Your task to perform on an android device: Open the phone app and click the voicemail tab. Image 0: 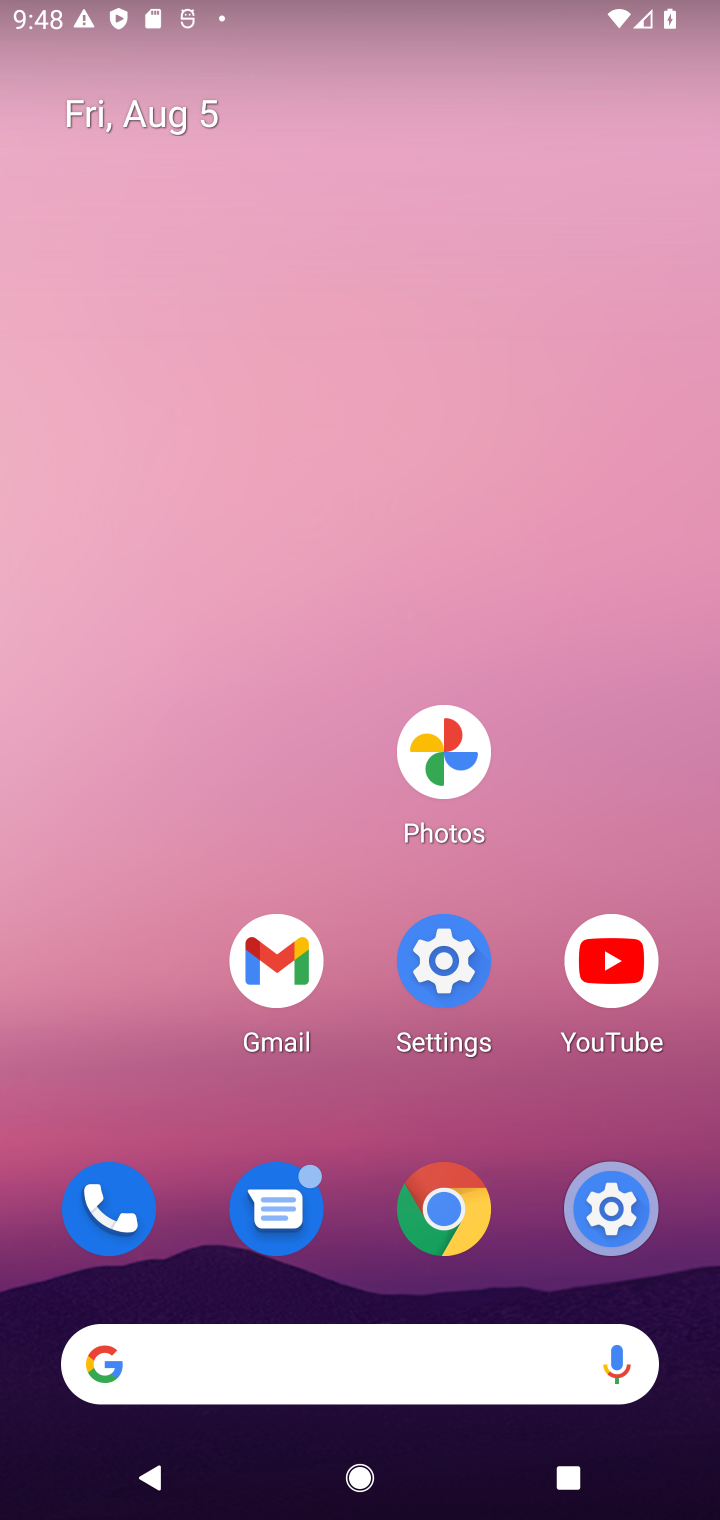
Step 0: click (400, 259)
Your task to perform on an android device: Open the phone app and click the voicemail tab. Image 1: 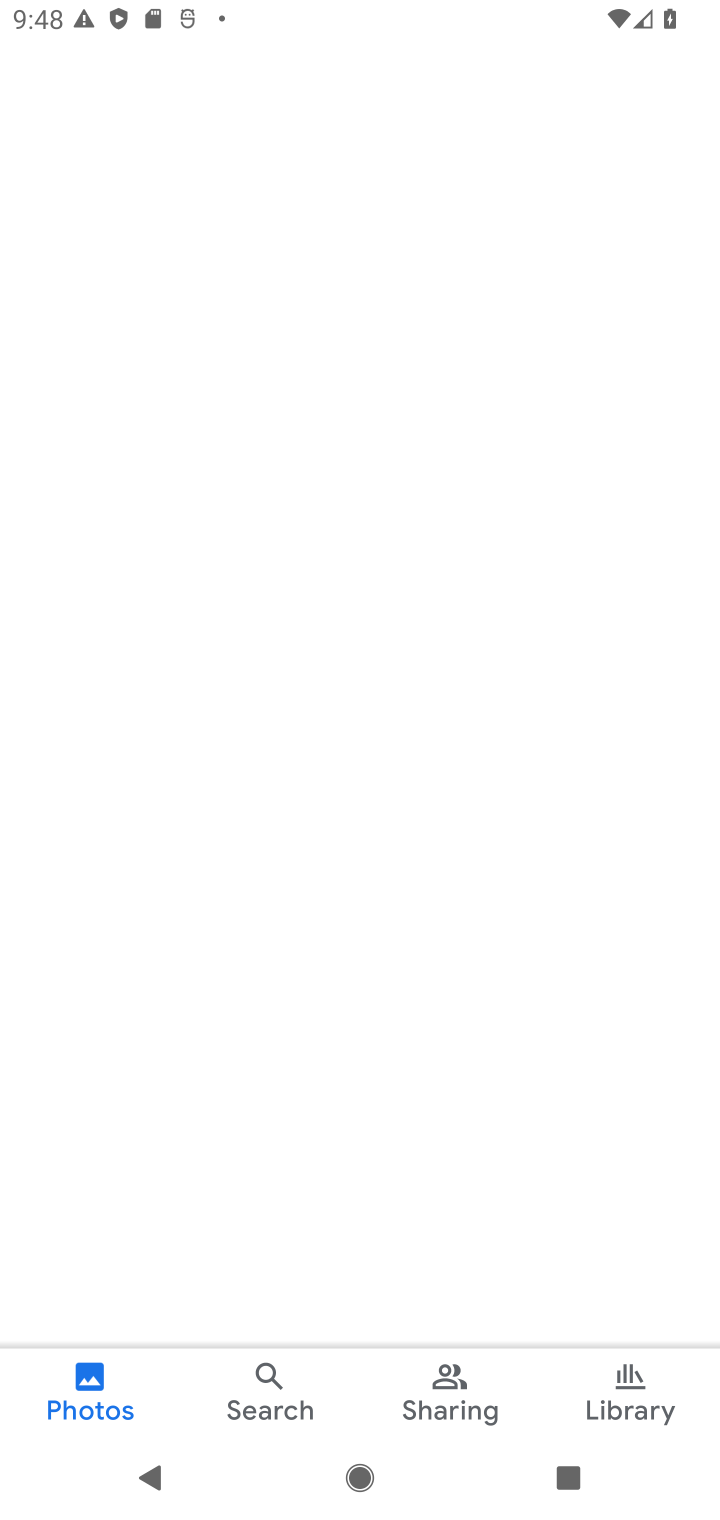
Step 1: drag from (347, 1293) to (417, 362)
Your task to perform on an android device: Open the phone app and click the voicemail tab. Image 2: 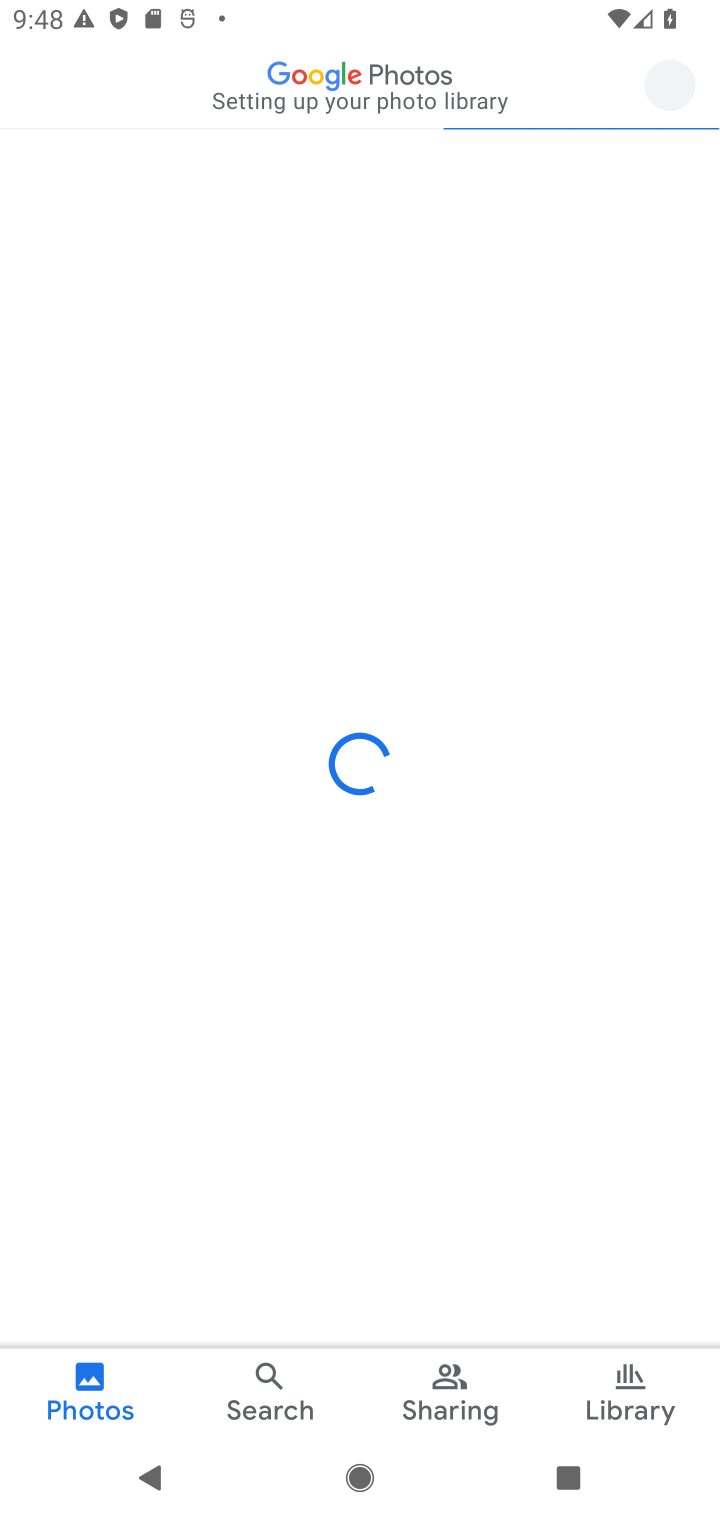
Step 2: drag from (395, 1382) to (456, 518)
Your task to perform on an android device: Open the phone app and click the voicemail tab. Image 3: 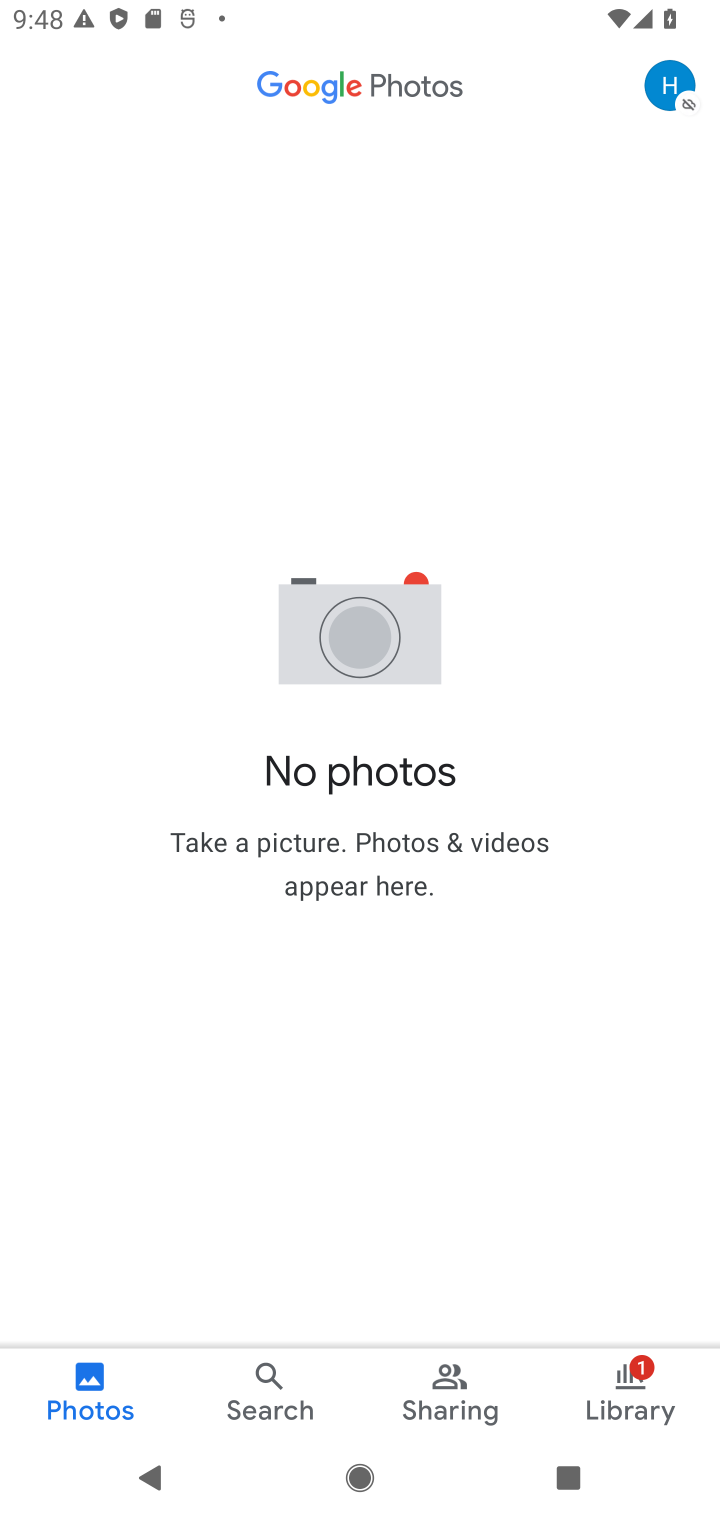
Step 3: drag from (261, 1225) to (350, 549)
Your task to perform on an android device: Open the phone app and click the voicemail tab. Image 4: 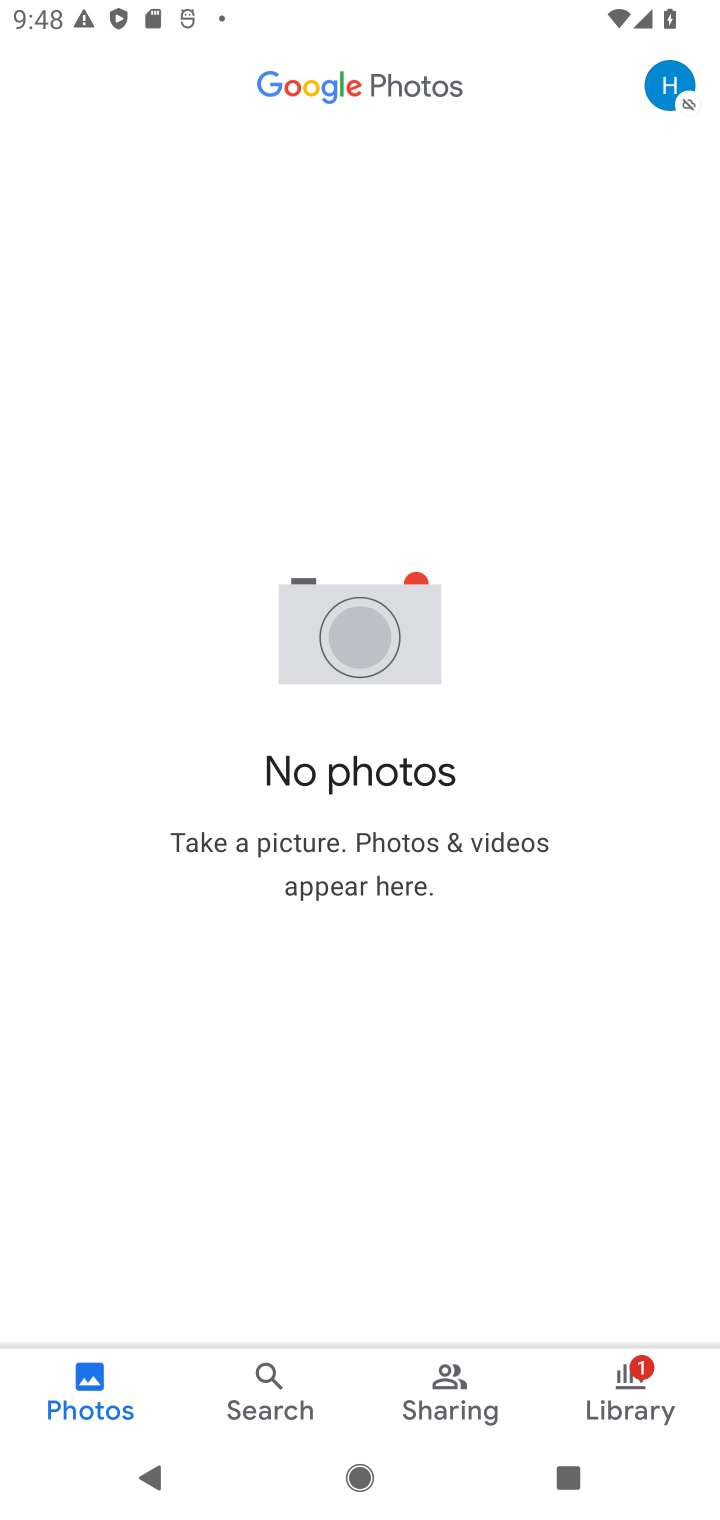
Step 4: drag from (330, 1214) to (347, 586)
Your task to perform on an android device: Open the phone app and click the voicemail tab. Image 5: 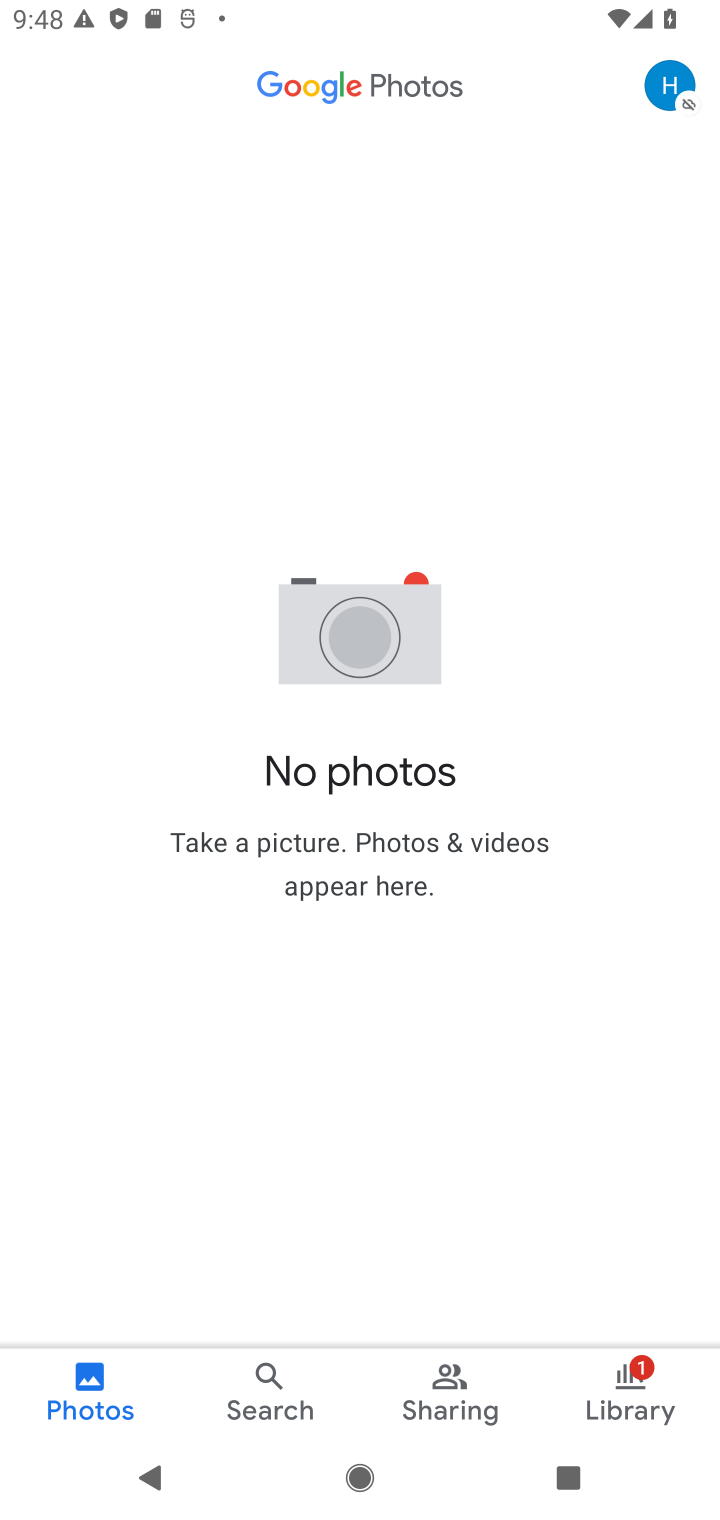
Step 5: drag from (321, 1277) to (303, 755)
Your task to perform on an android device: Open the phone app and click the voicemail tab. Image 6: 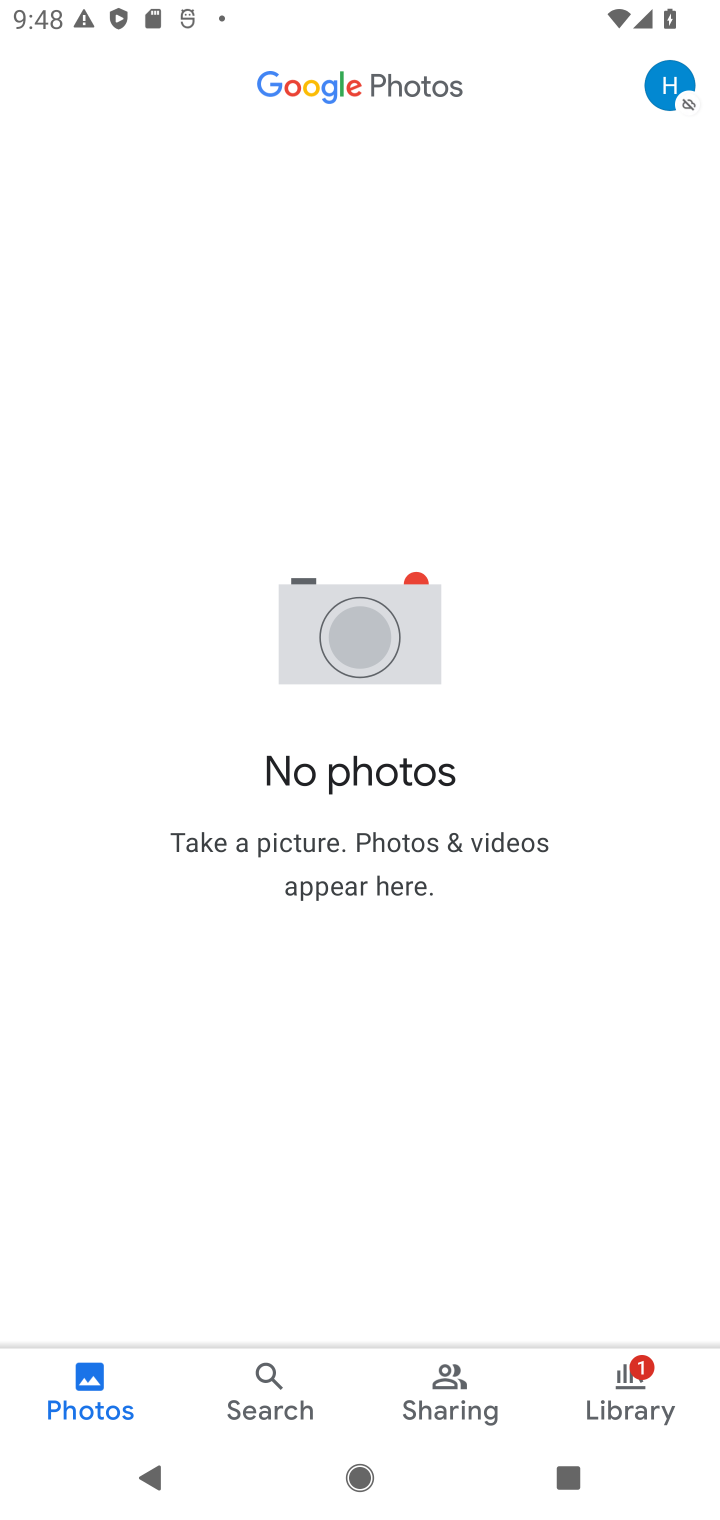
Step 6: drag from (365, 966) to (365, 560)
Your task to perform on an android device: Open the phone app and click the voicemail tab. Image 7: 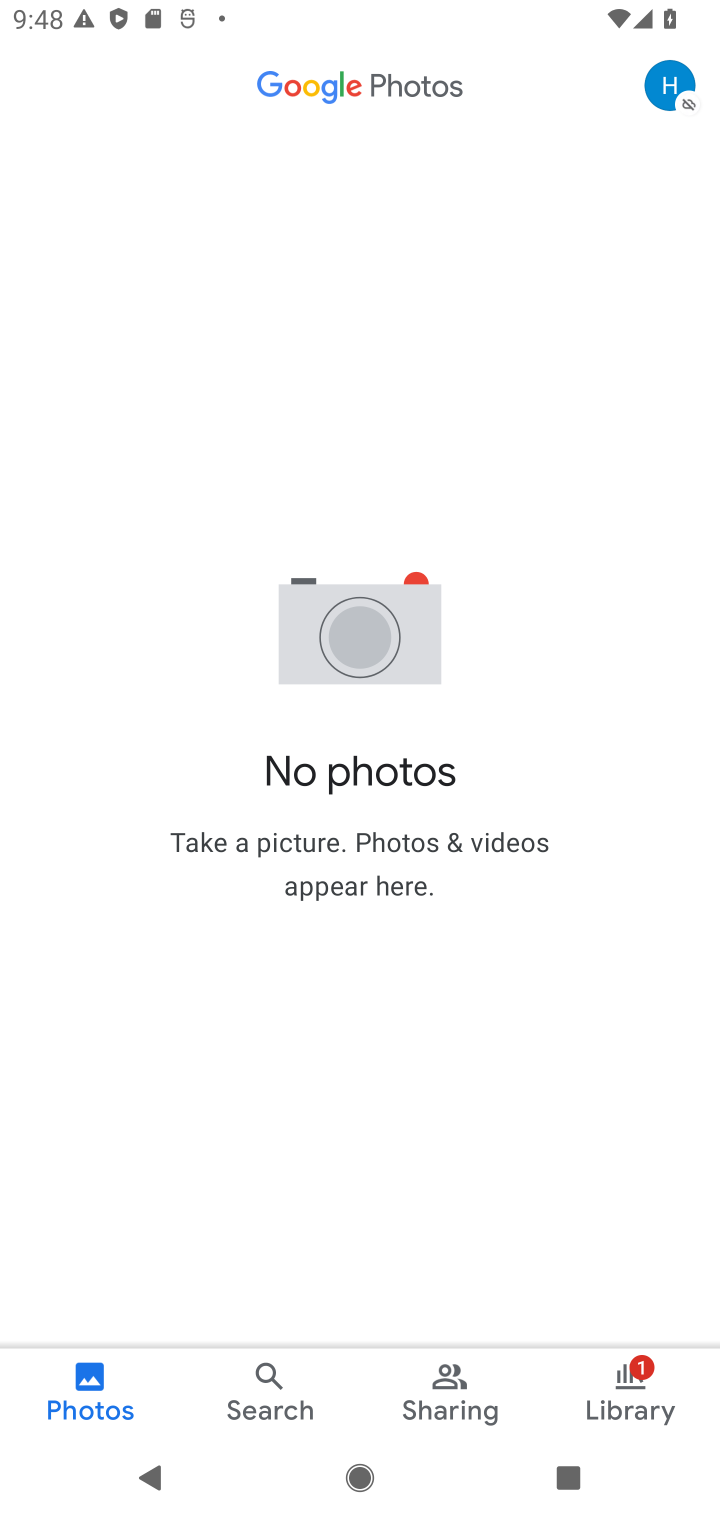
Step 7: drag from (307, 983) to (338, 527)
Your task to perform on an android device: Open the phone app and click the voicemail tab. Image 8: 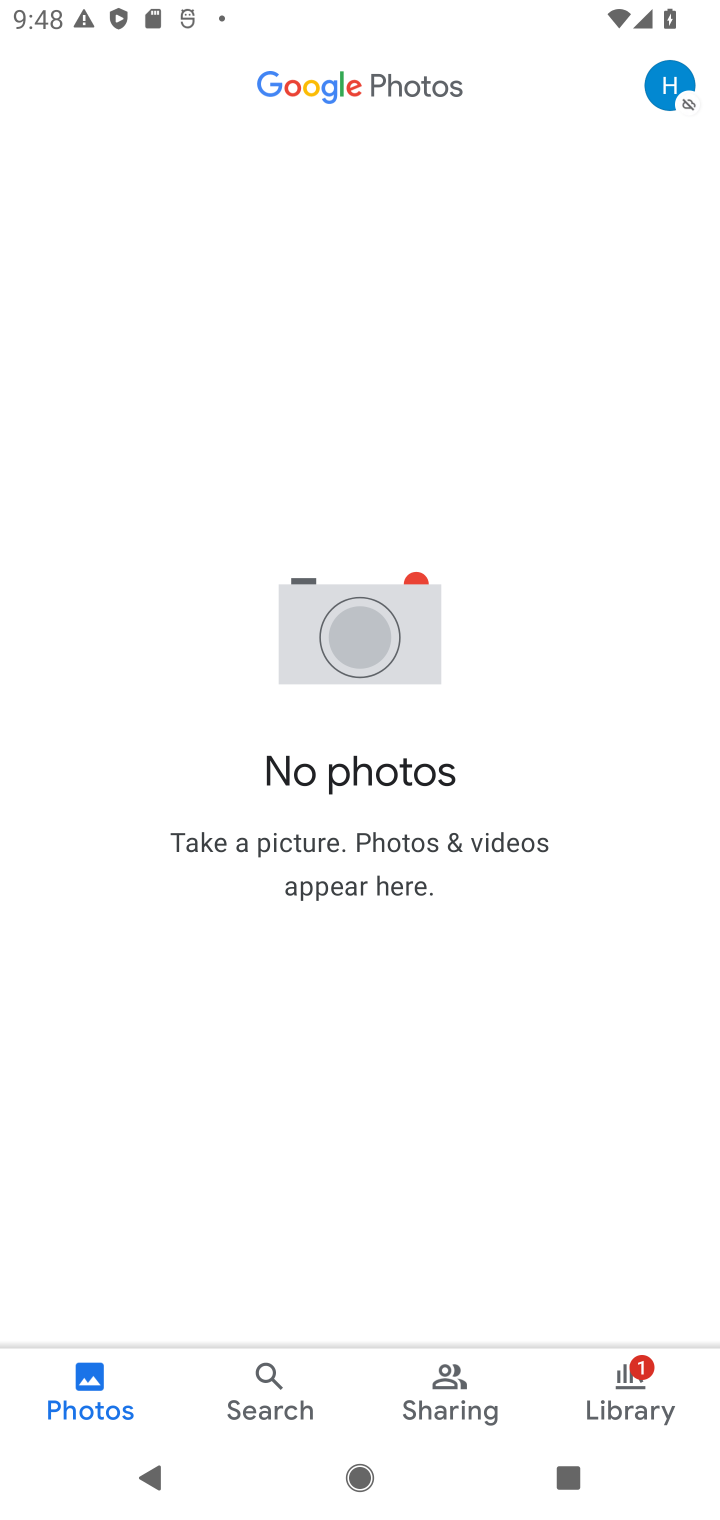
Step 8: drag from (310, 992) to (349, 431)
Your task to perform on an android device: Open the phone app and click the voicemail tab. Image 9: 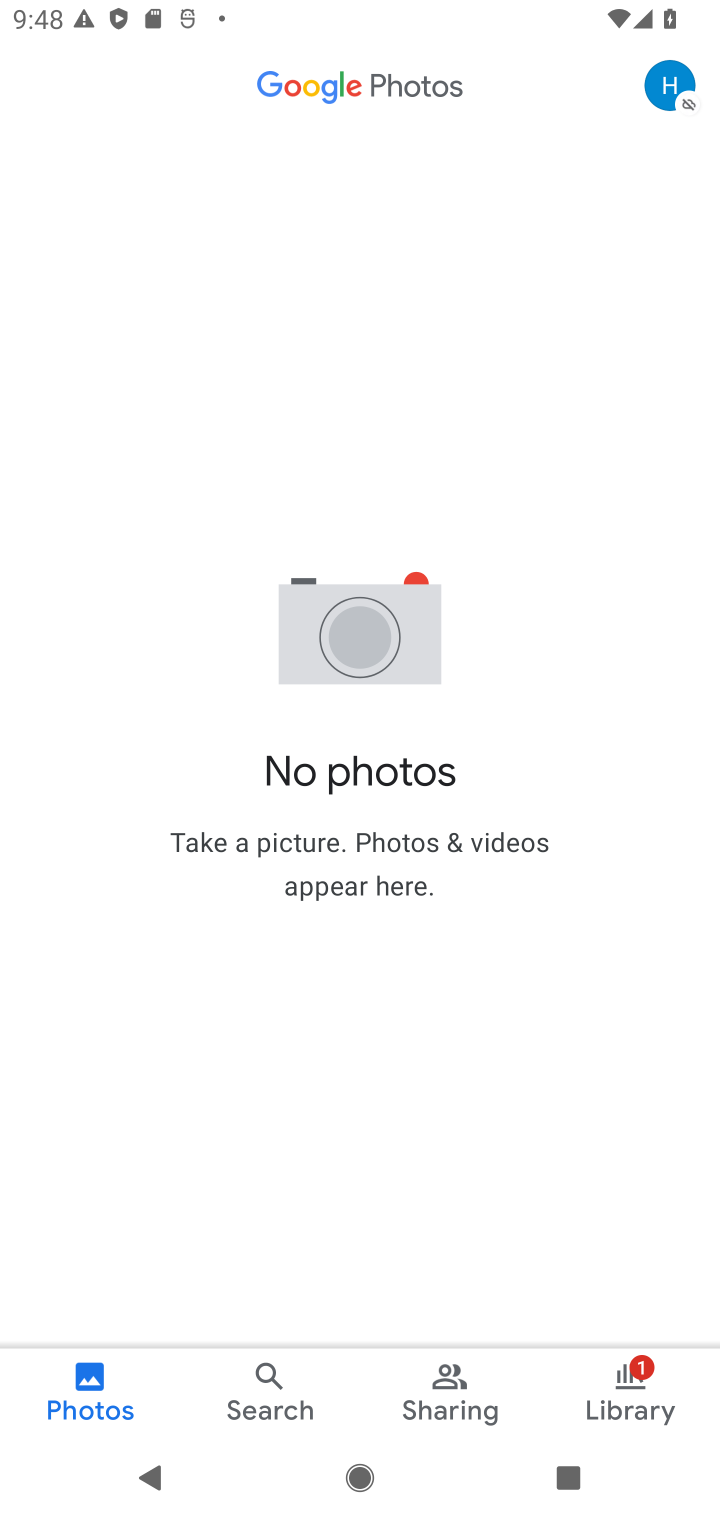
Step 9: press home button
Your task to perform on an android device: Open the phone app and click the voicemail tab. Image 10: 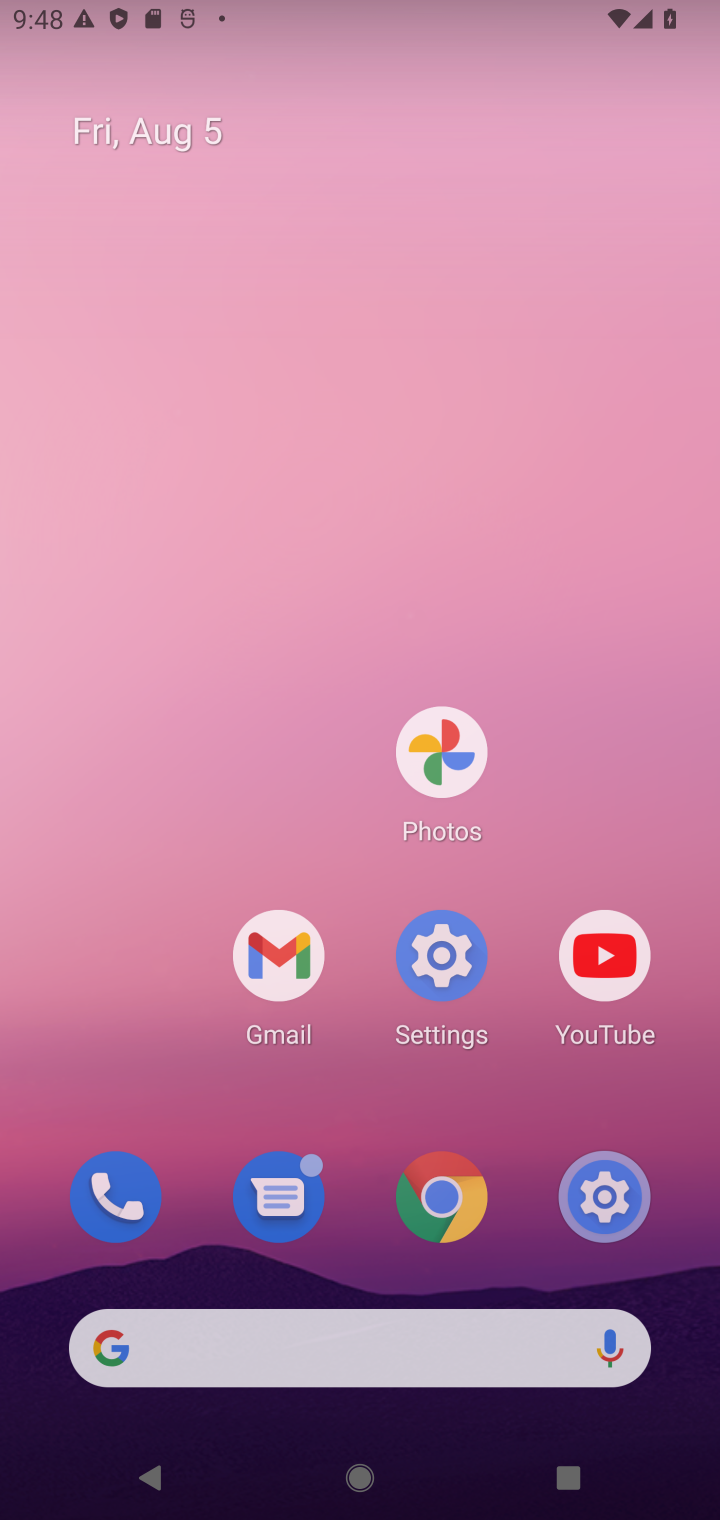
Step 10: drag from (361, 1114) to (471, 16)
Your task to perform on an android device: Open the phone app and click the voicemail tab. Image 11: 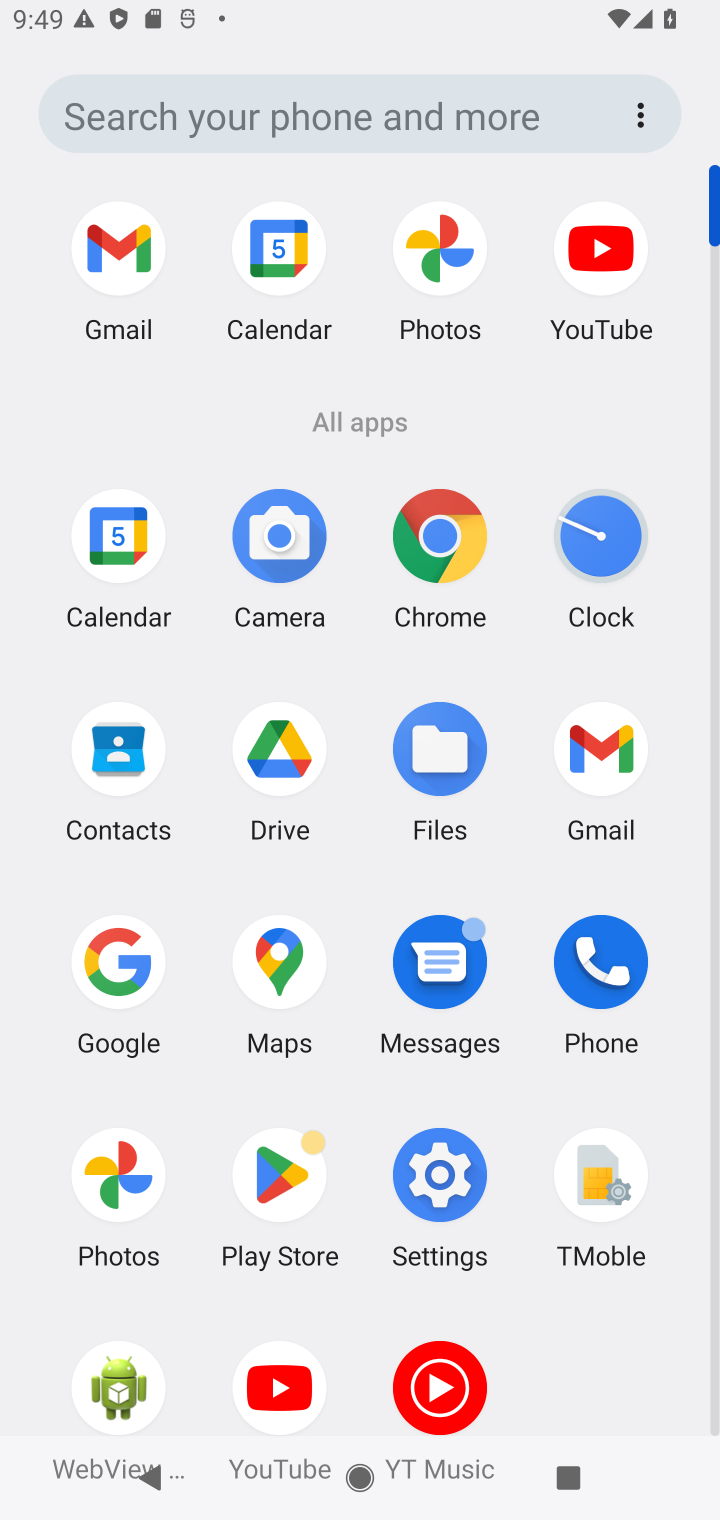
Step 11: click (591, 978)
Your task to perform on an android device: Open the phone app and click the voicemail tab. Image 12: 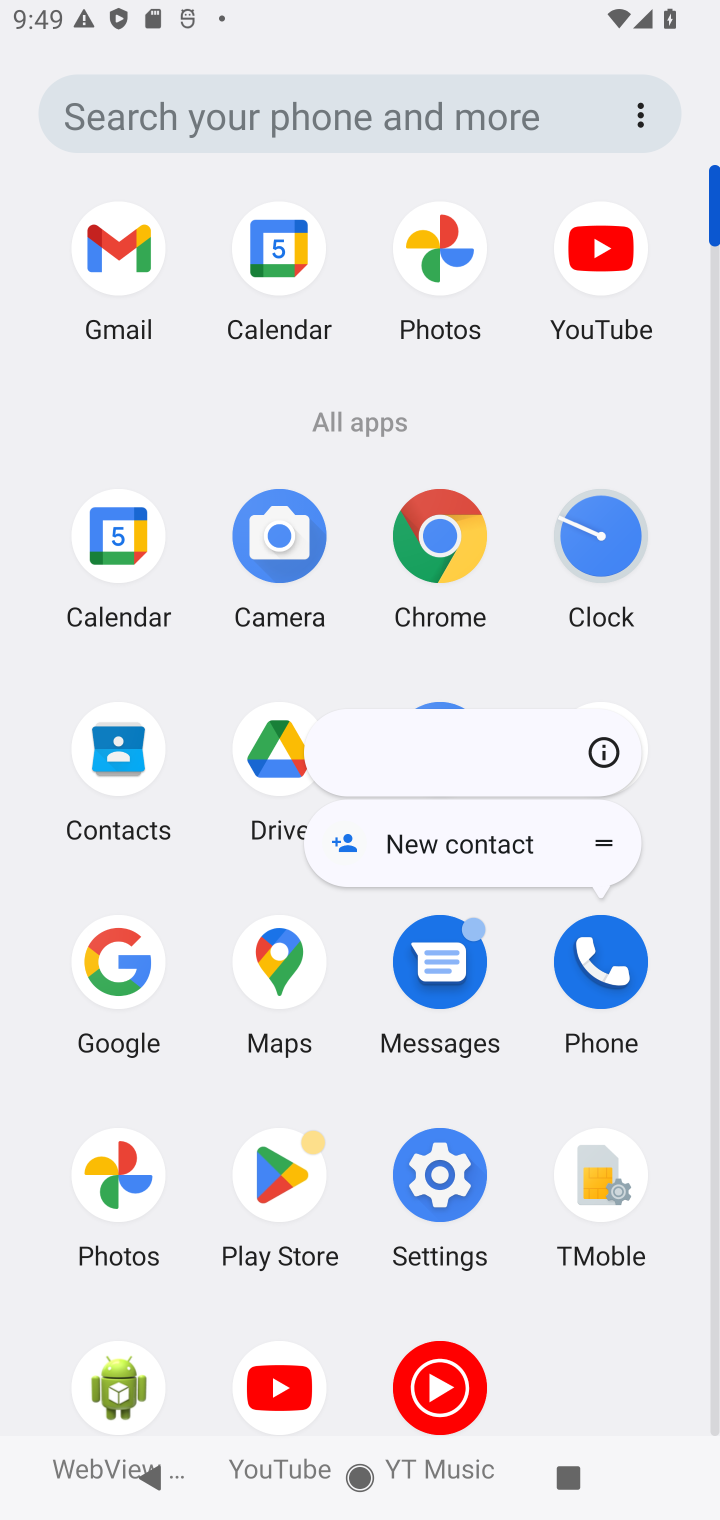
Step 12: click (597, 741)
Your task to perform on an android device: Open the phone app and click the voicemail tab. Image 13: 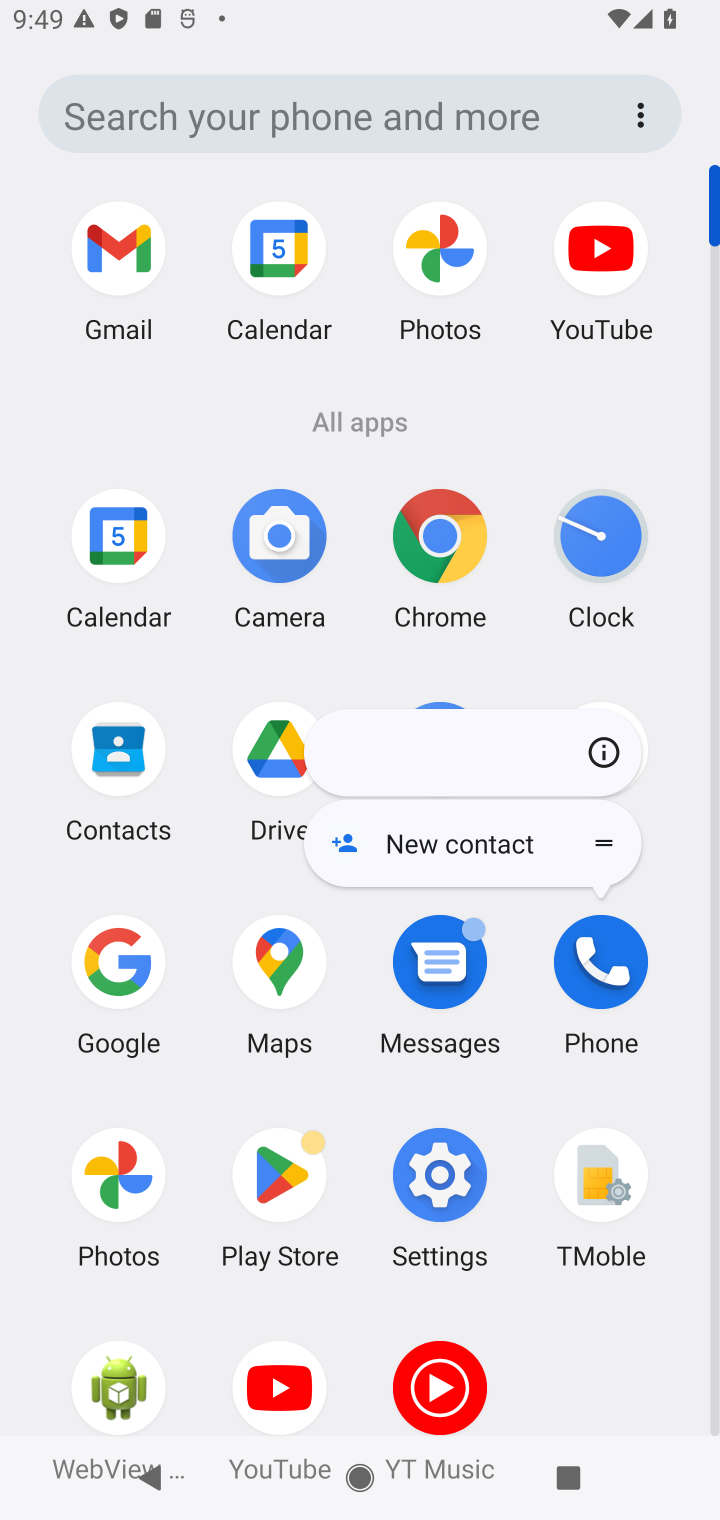
Step 13: click (609, 740)
Your task to perform on an android device: Open the phone app and click the voicemail tab. Image 14: 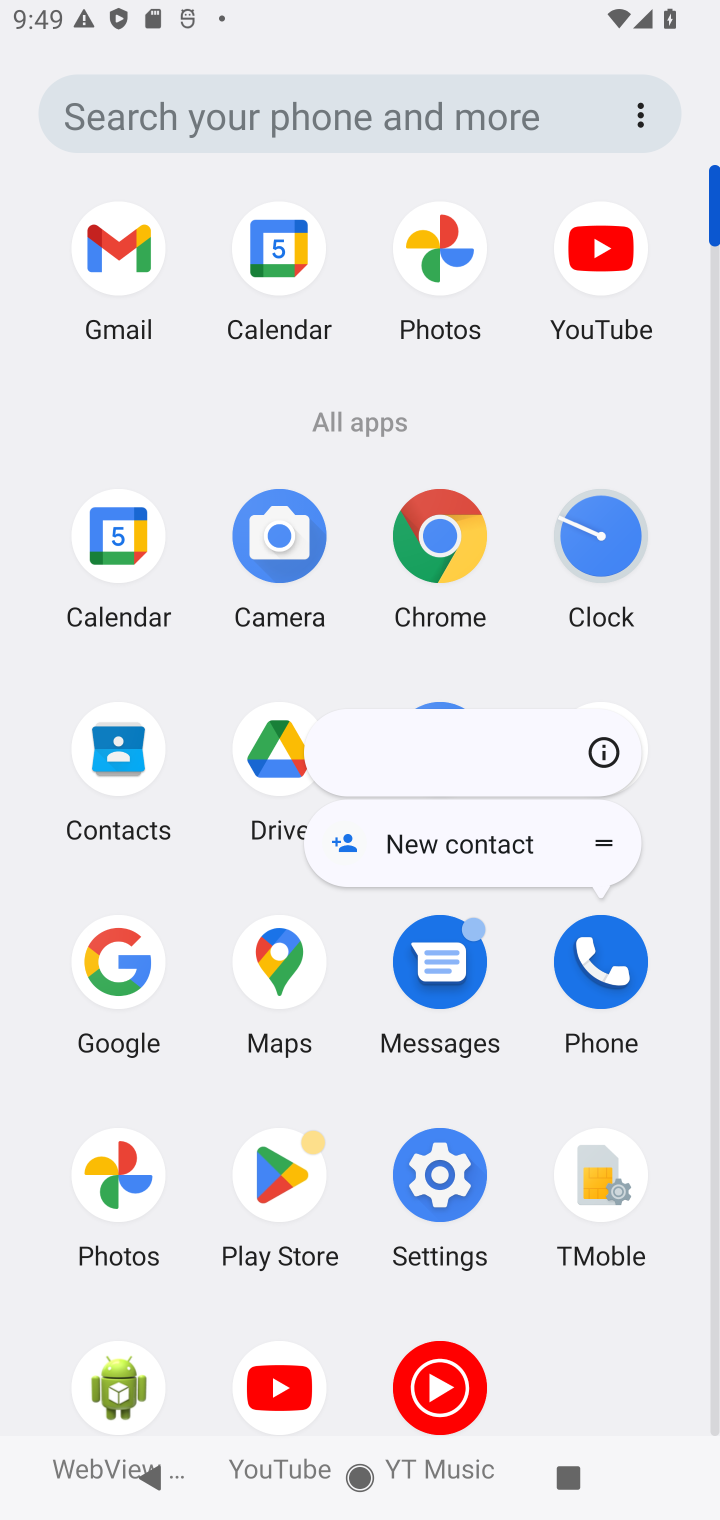
Step 14: click (599, 743)
Your task to perform on an android device: Open the phone app and click the voicemail tab. Image 15: 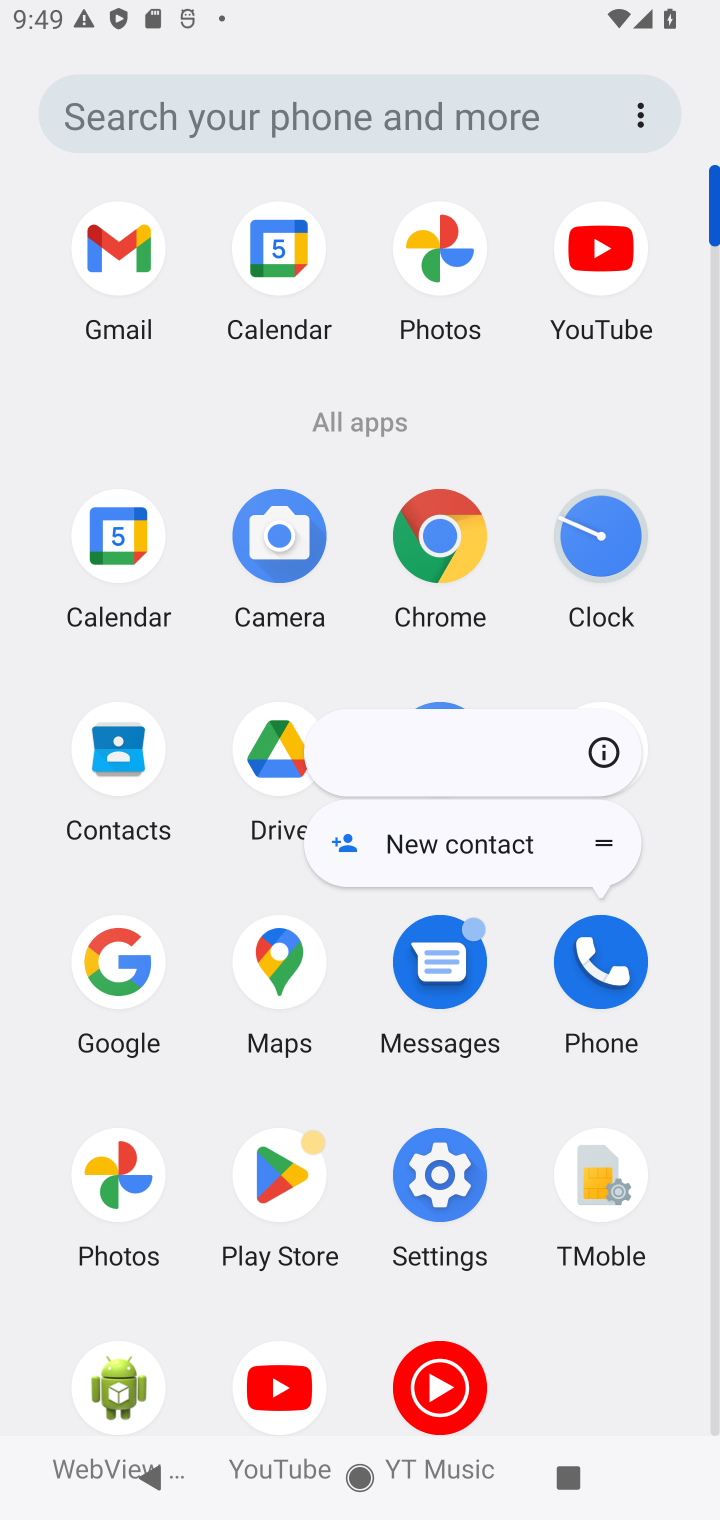
Step 15: click (599, 743)
Your task to perform on an android device: Open the phone app and click the voicemail tab. Image 16: 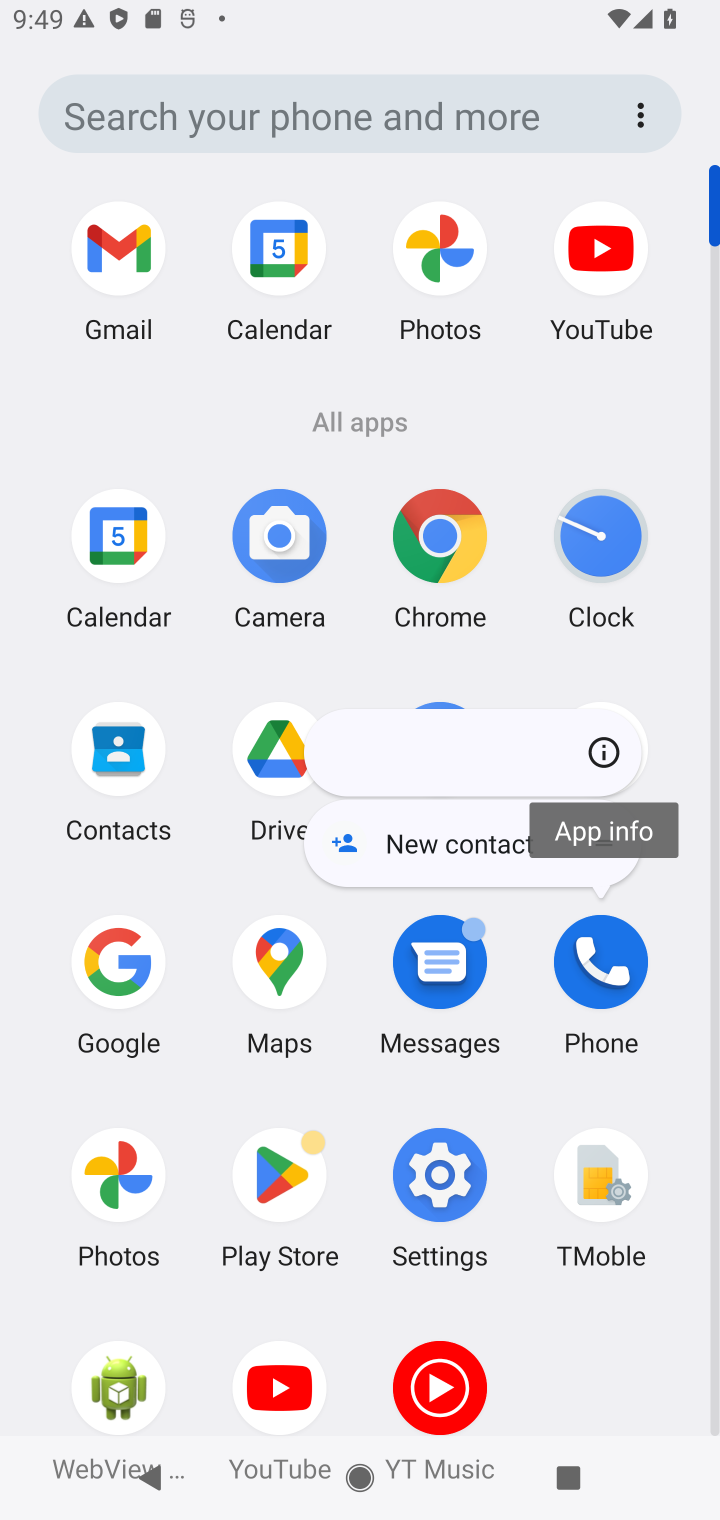
Step 16: click (602, 982)
Your task to perform on an android device: Open the phone app and click the voicemail tab. Image 17: 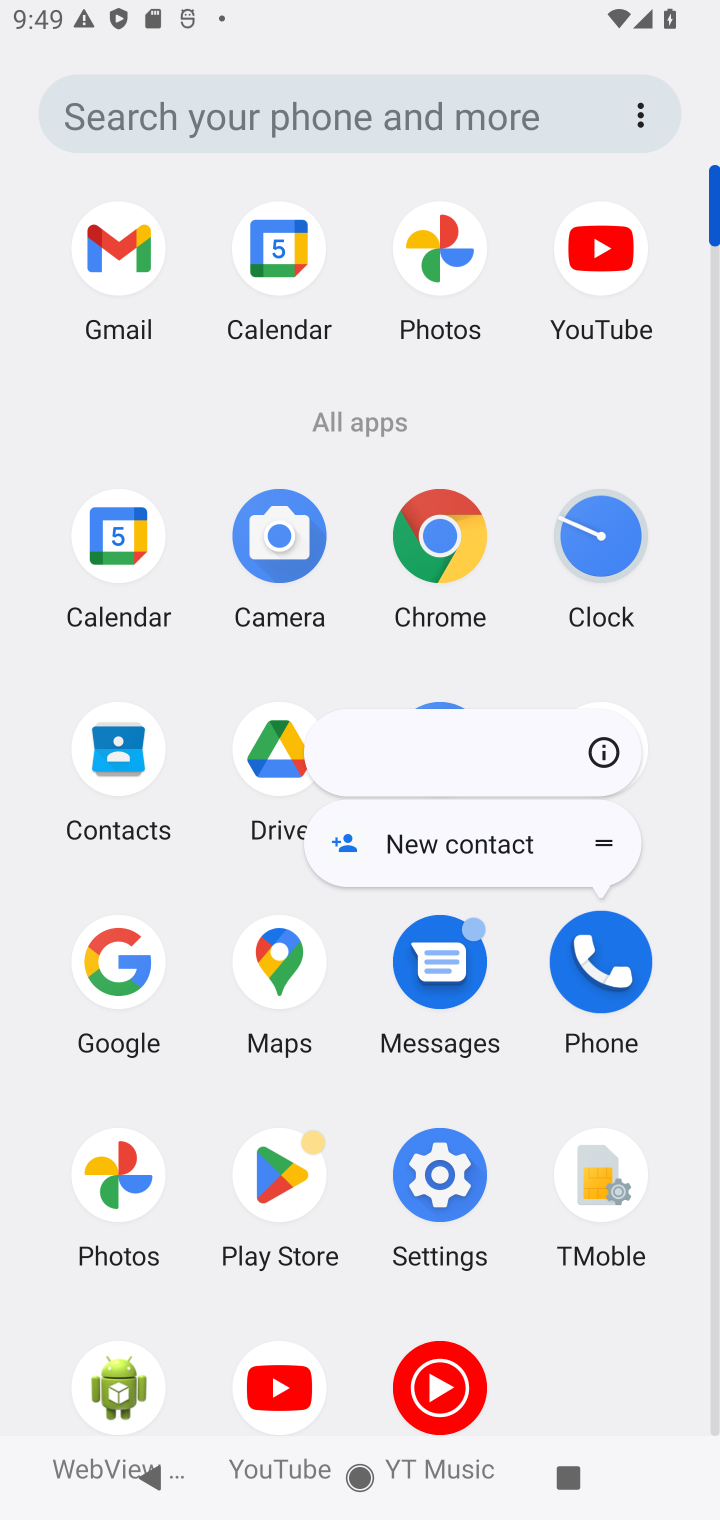
Step 17: click (602, 978)
Your task to perform on an android device: Open the phone app and click the voicemail tab. Image 18: 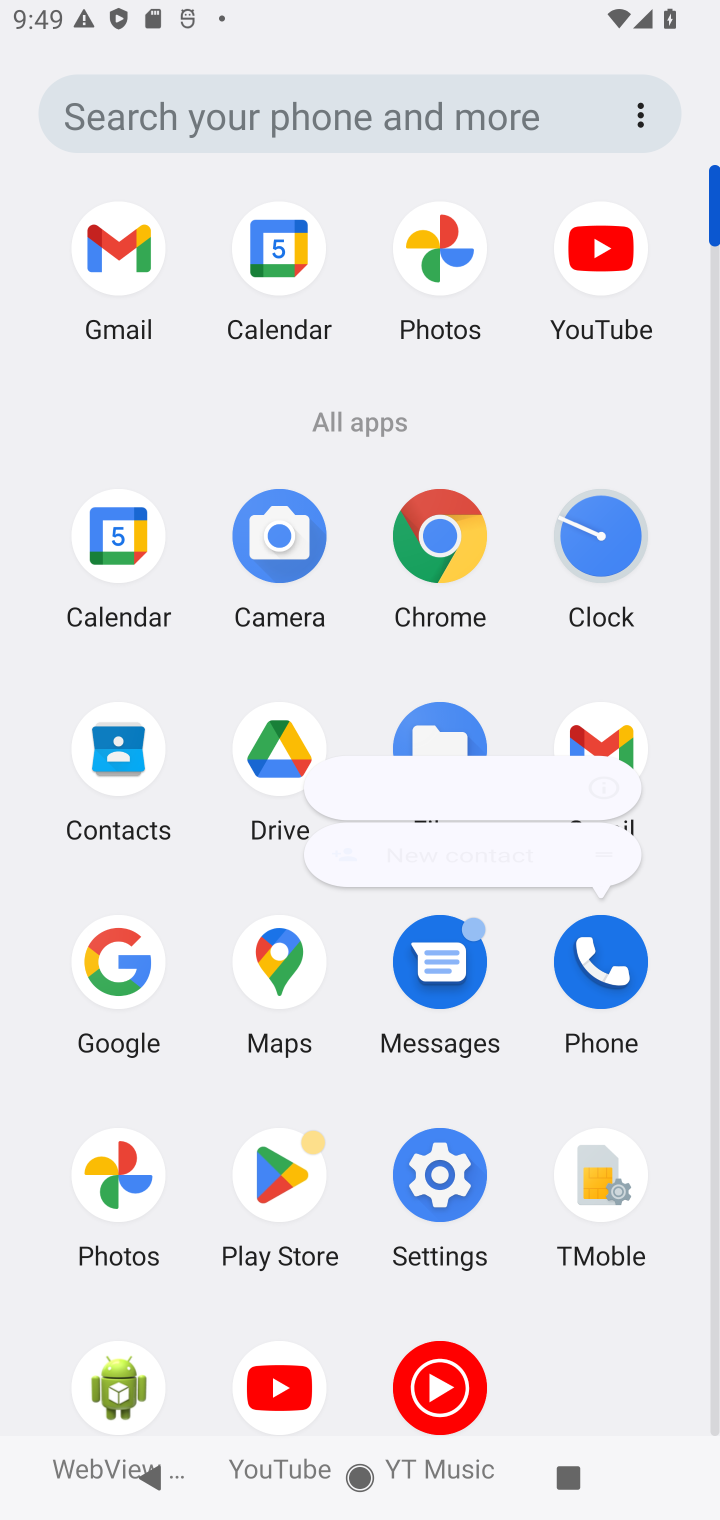
Step 18: click (602, 978)
Your task to perform on an android device: Open the phone app and click the voicemail tab. Image 19: 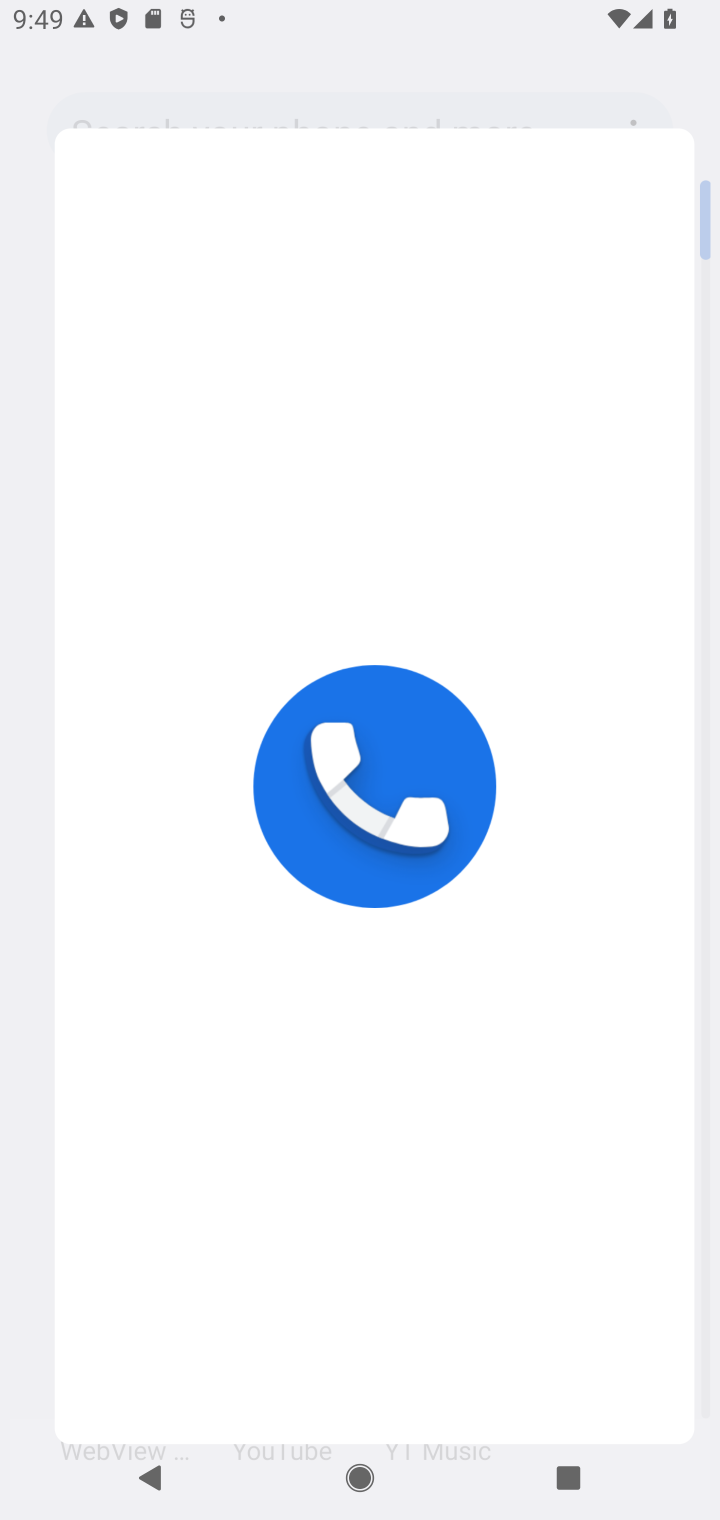
Step 19: click (602, 978)
Your task to perform on an android device: Open the phone app and click the voicemail tab. Image 20: 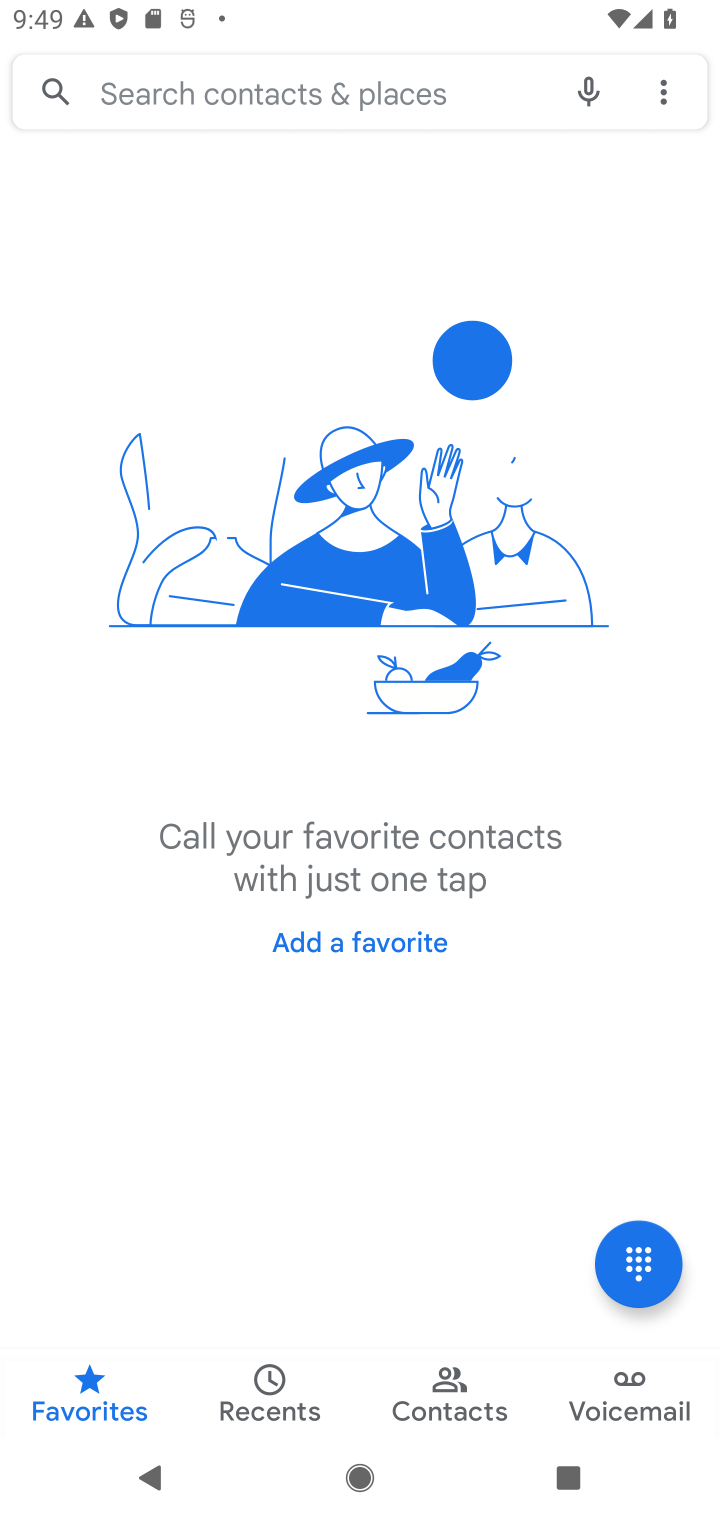
Step 20: click (575, 1394)
Your task to perform on an android device: Open the phone app and click the voicemail tab. Image 21: 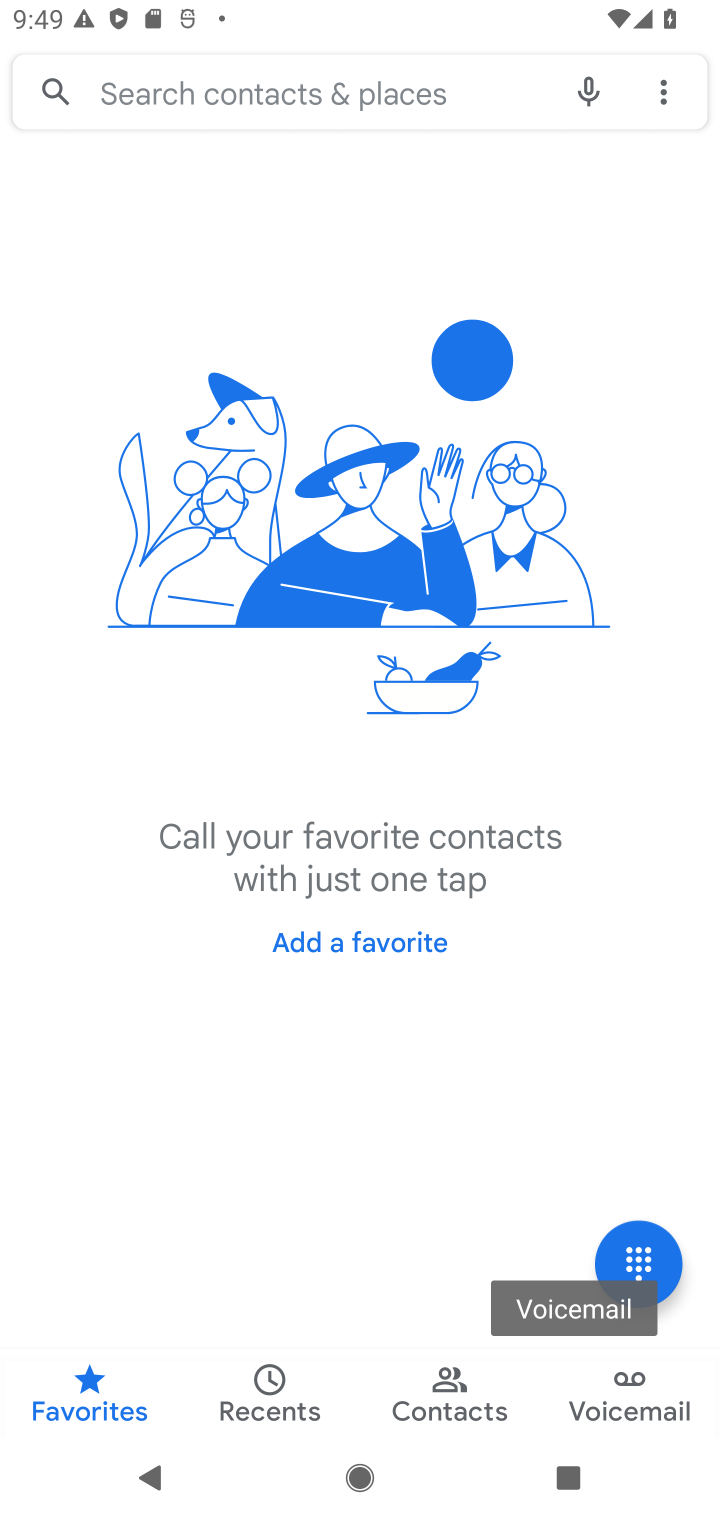
Step 21: click (631, 1378)
Your task to perform on an android device: Open the phone app and click the voicemail tab. Image 22: 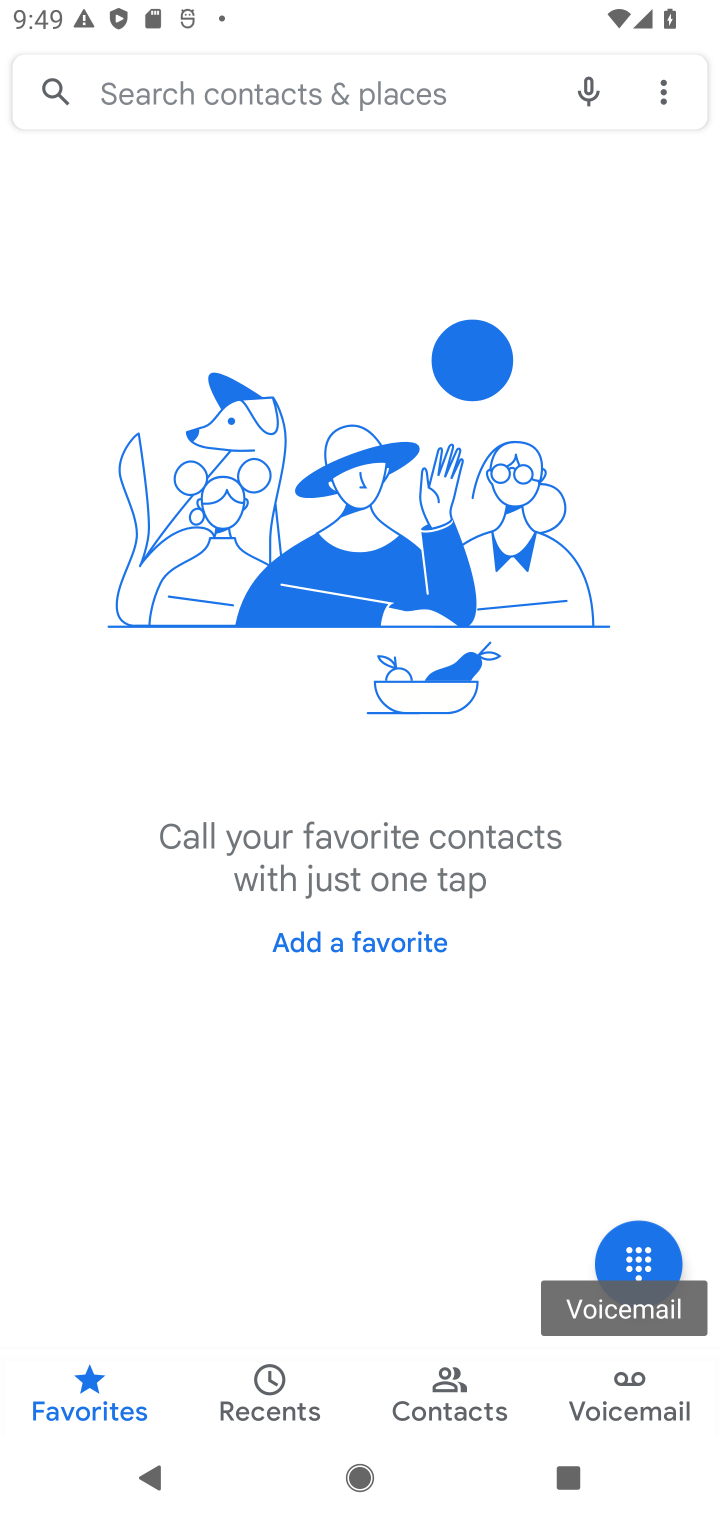
Step 22: drag from (345, 1041) to (388, 419)
Your task to perform on an android device: Open the phone app and click the voicemail tab. Image 23: 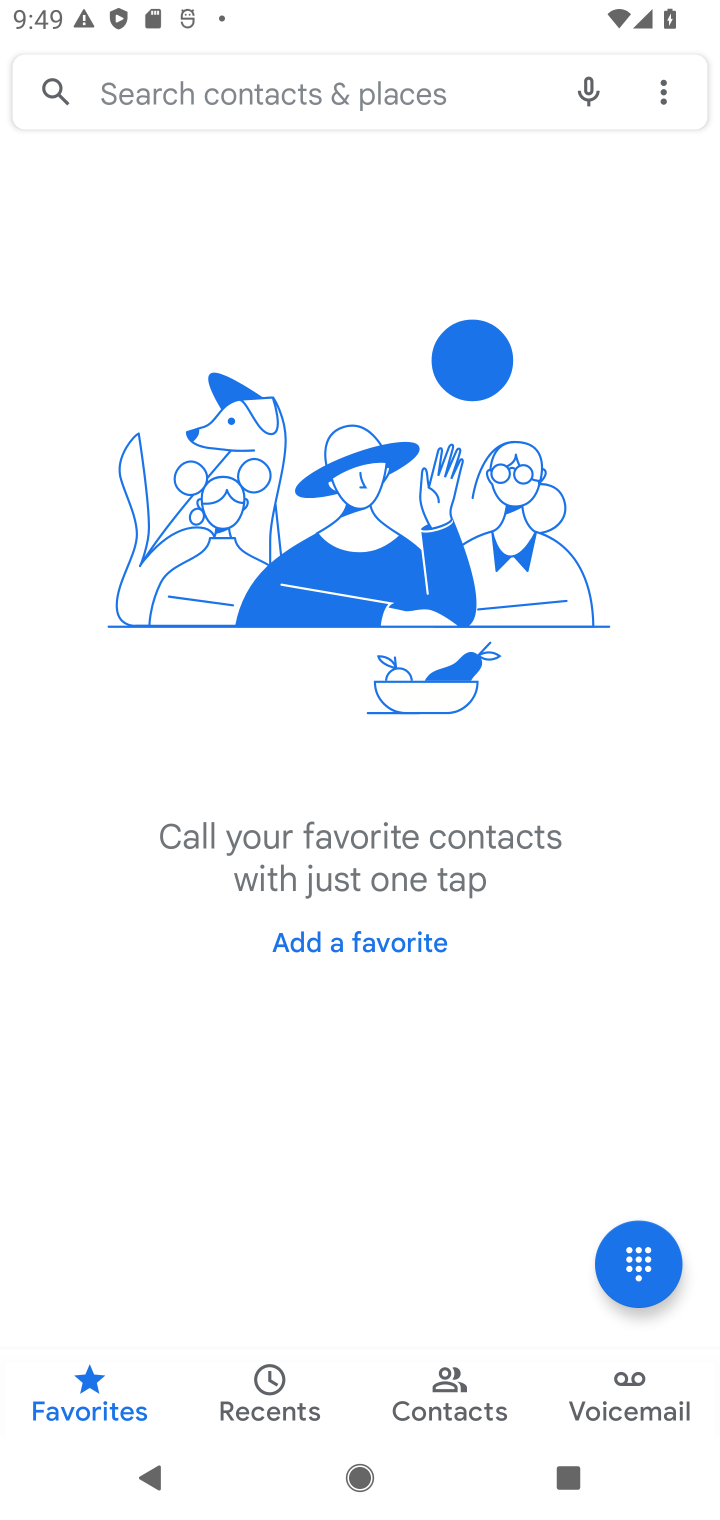
Step 23: click (599, 1417)
Your task to perform on an android device: Open the phone app and click the voicemail tab. Image 24: 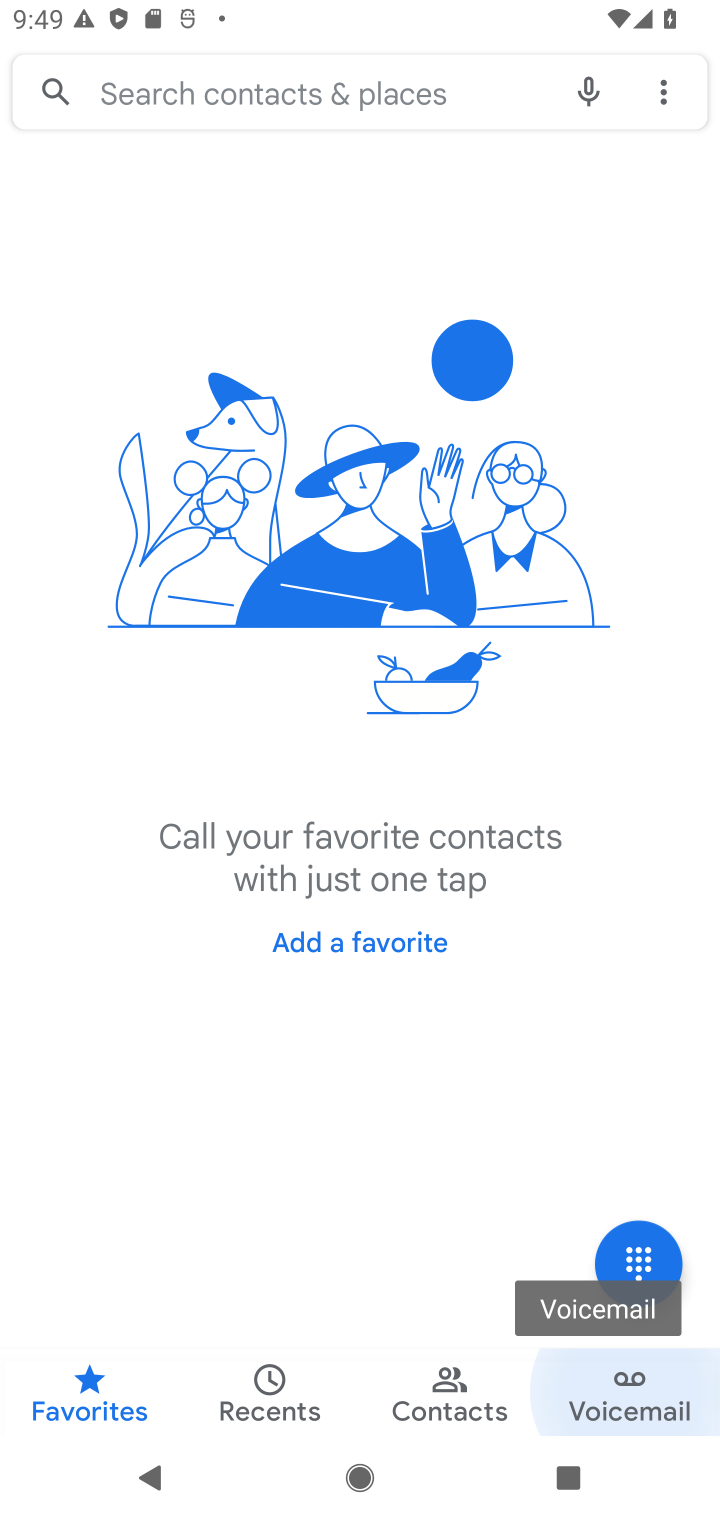
Step 24: drag from (384, 1226) to (384, 651)
Your task to perform on an android device: Open the phone app and click the voicemail tab. Image 25: 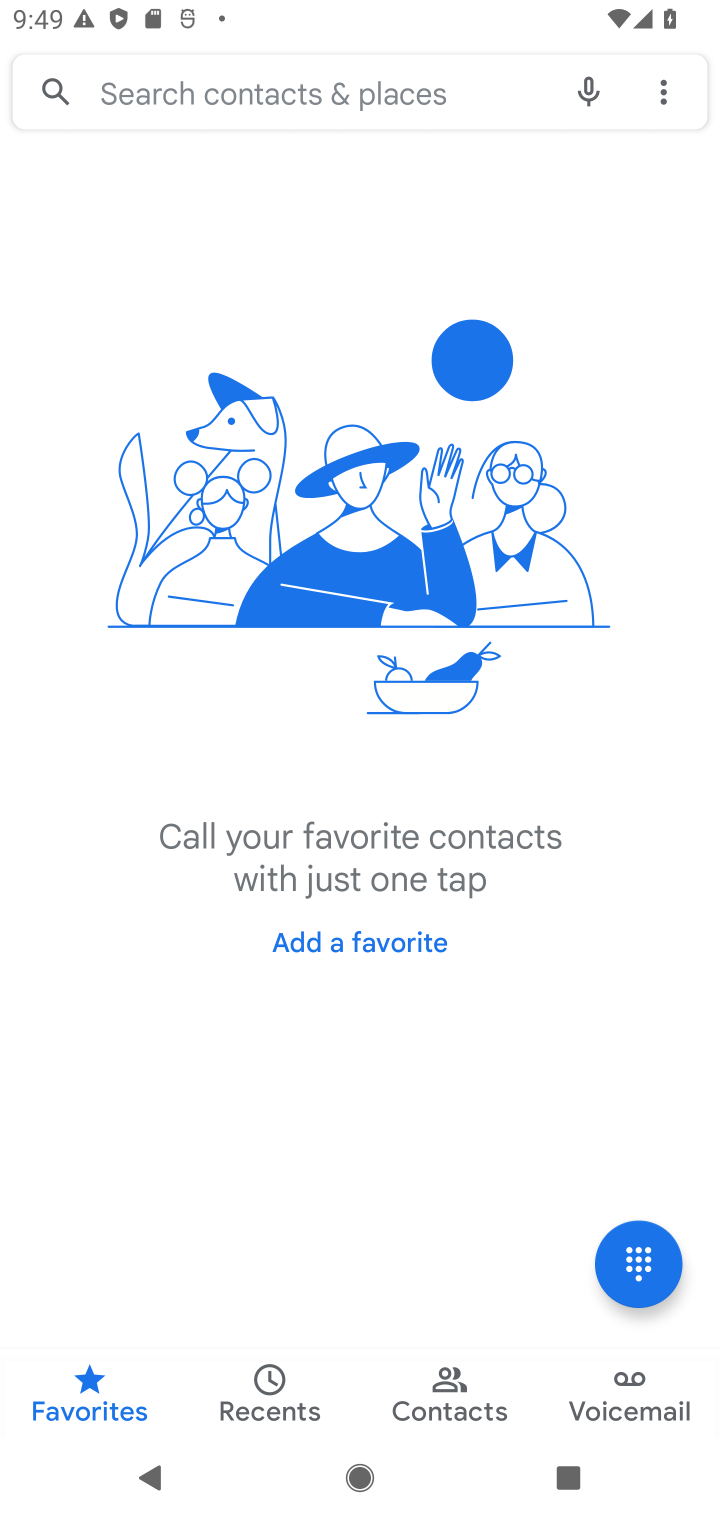
Step 25: click (649, 1396)
Your task to perform on an android device: Open the phone app and click the voicemail tab. Image 26: 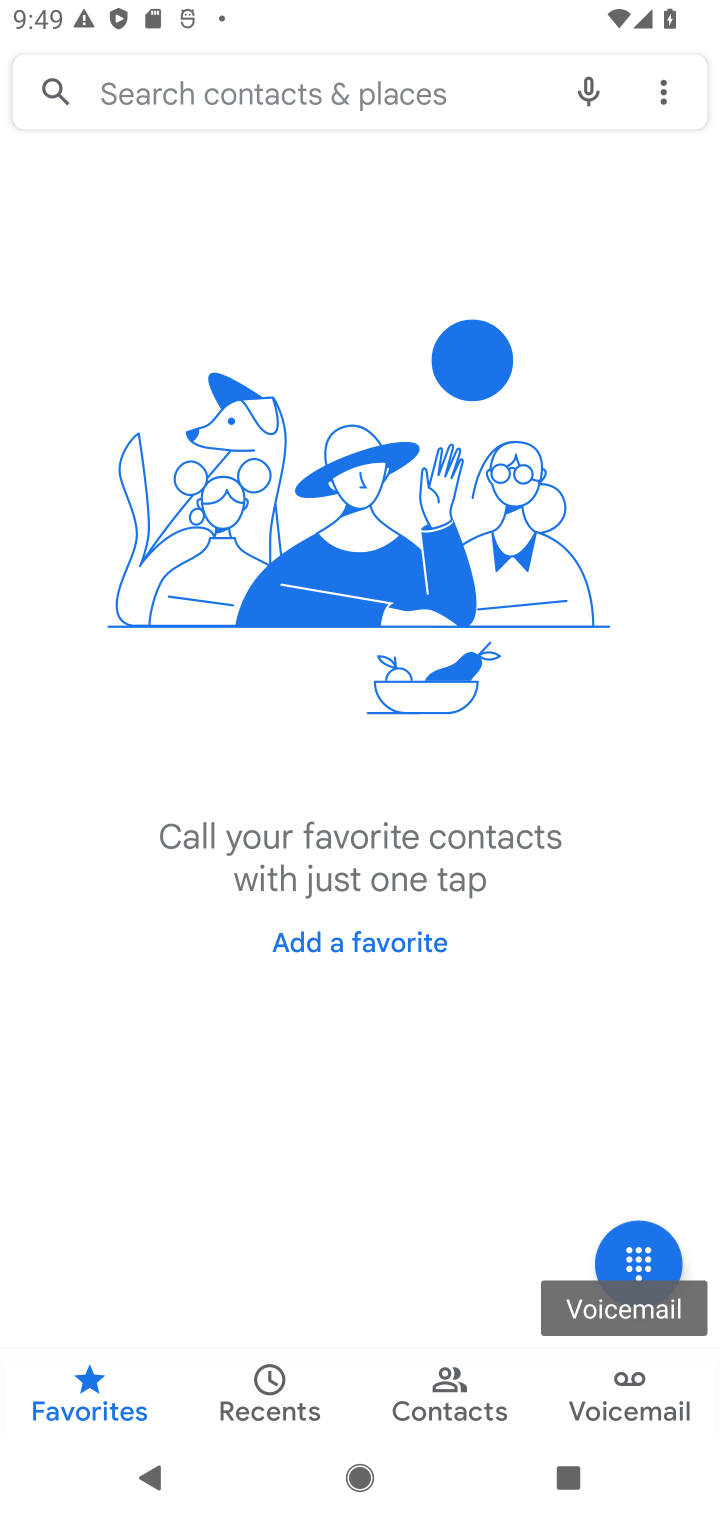
Step 26: click (600, 1372)
Your task to perform on an android device: Open the phone app and click the voicemail tab. Image 27: 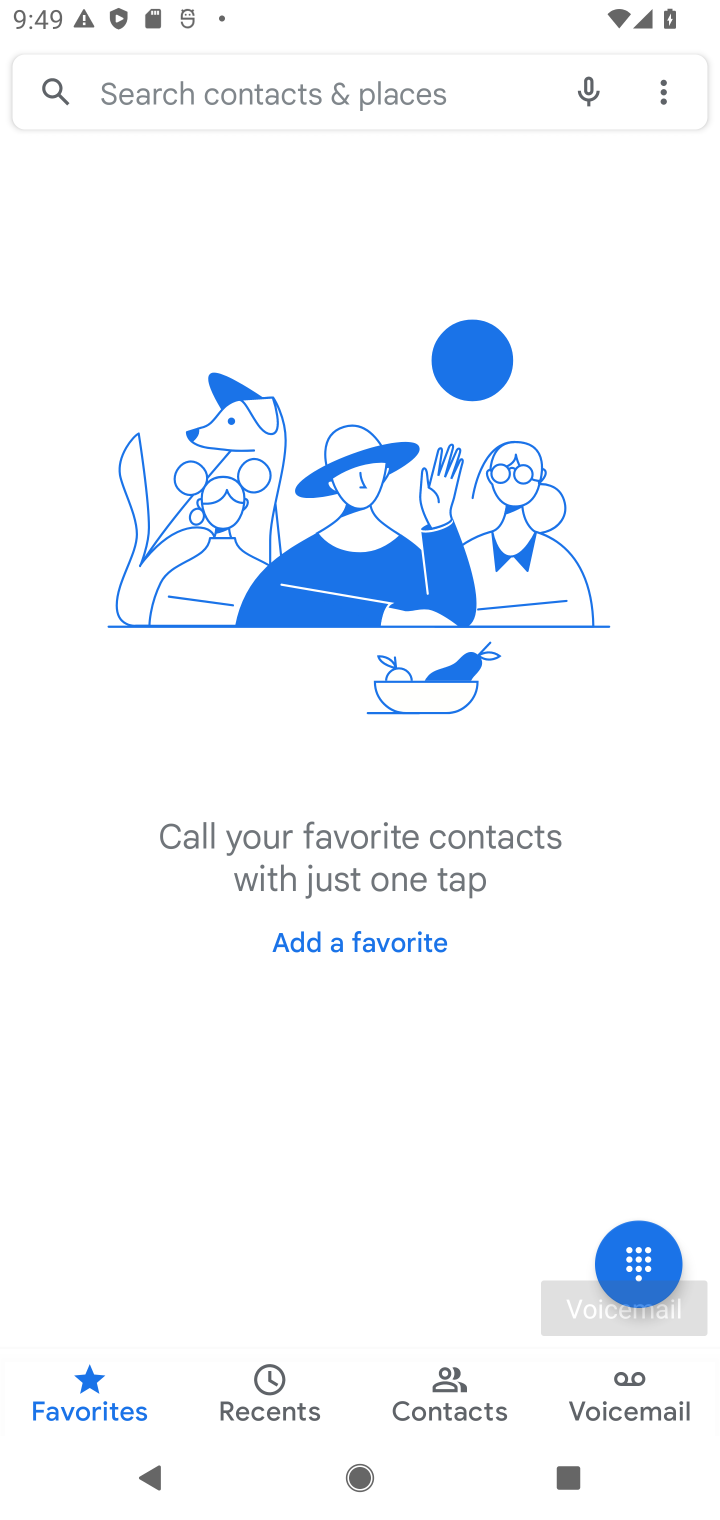
Step 27: click (600, 1372)
Your task to perform on an android device: Open the phone app and click the voicemail tab. Image 28: 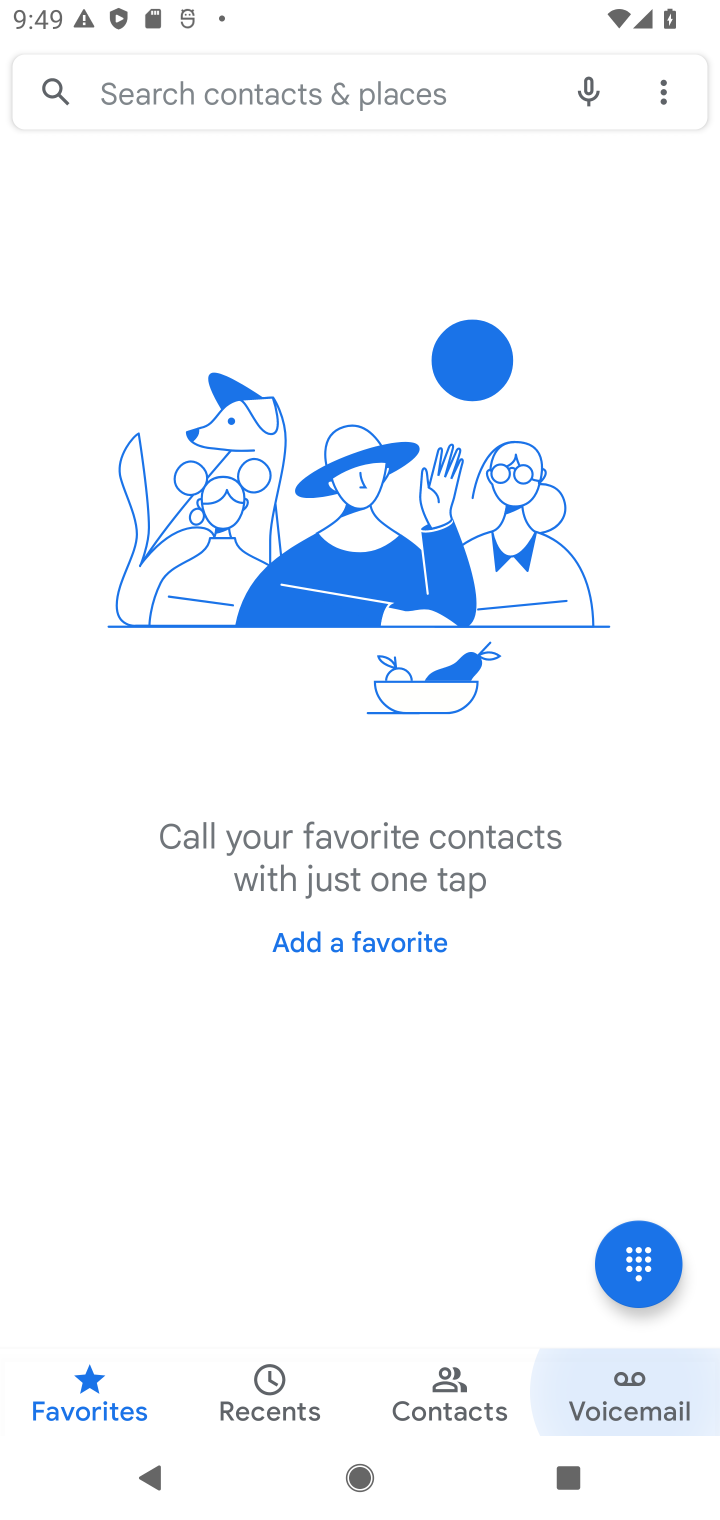
Step 28: task complete